Your task to perform on an android device: What's the weather going to be this weekend? Image 0: 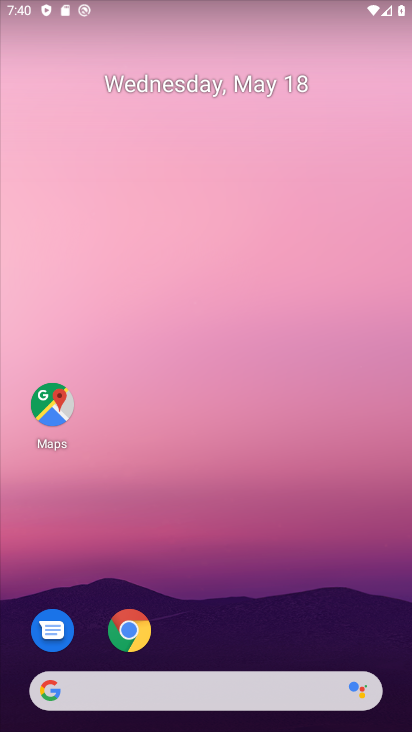
Step 0: drag from (312, 539) to (373, 73)
Your task to perform on an android device: What's the weather going to be this weekend? Image 1: 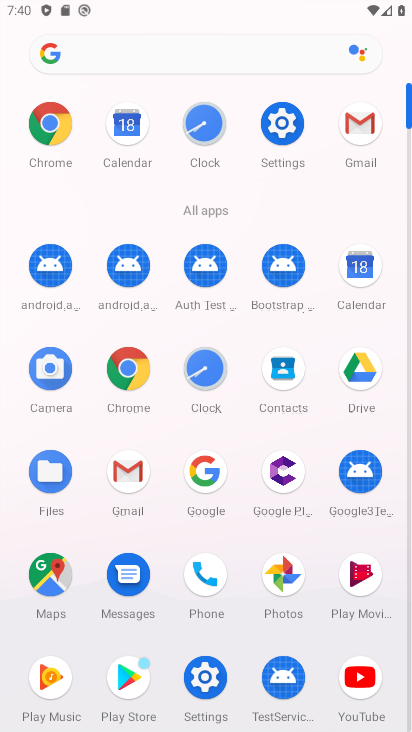
Step 1: press home button
Your task to perform on an android device: What's the weather going to be this weekend? Image 2: 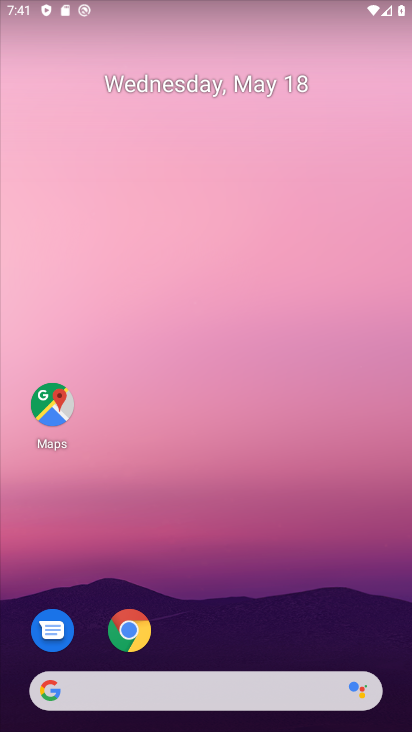
Step 2: click (29, 705)
Your task to perform on an android device: What's the weather going to be this weekend? Image 3: 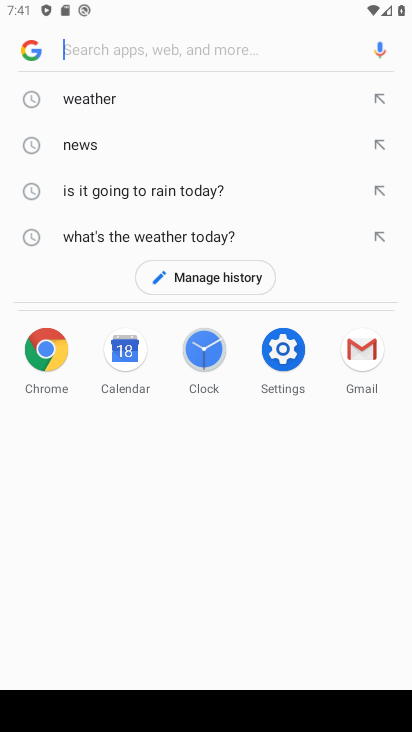
Step 3: click (23, 37)
Your task to perform on an android device: What's the weather going to be this weekend? Image 4: 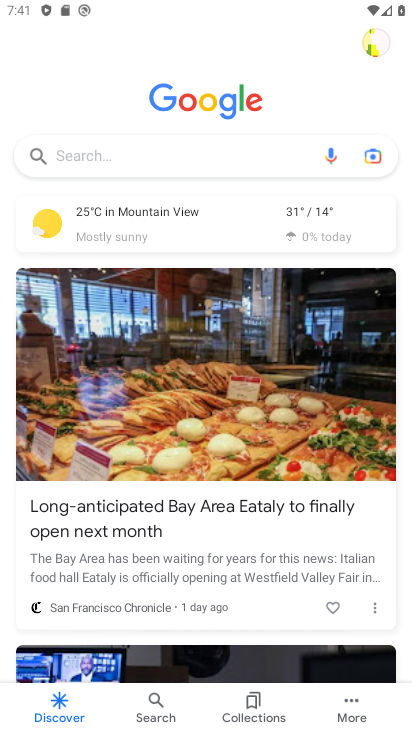
Step 4: click (231, 236)
Your task to perform on an android device: What's the weather going to be this weekend? Image 5: 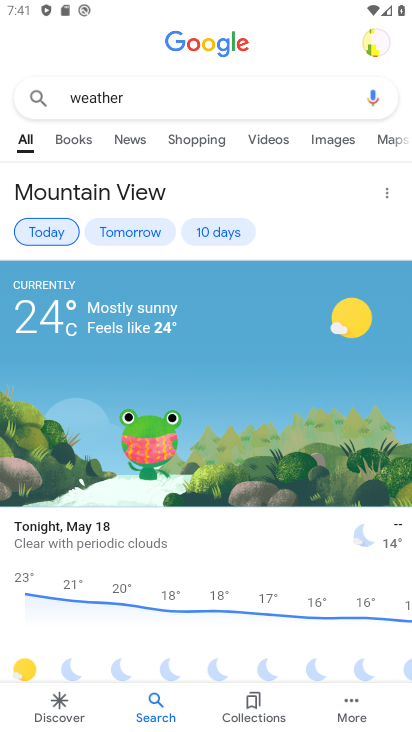
Step 5: click (254, 234)
Your task to perform on an android device: What's the weather going to be this weekend? Image 6: 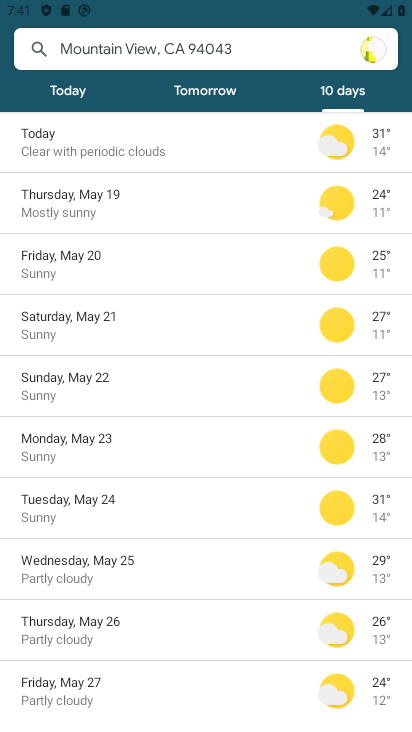
Step 6: task complete